Your task to perform on an android device: Add macbook pro to the cart on bestbuy.com Image 0: 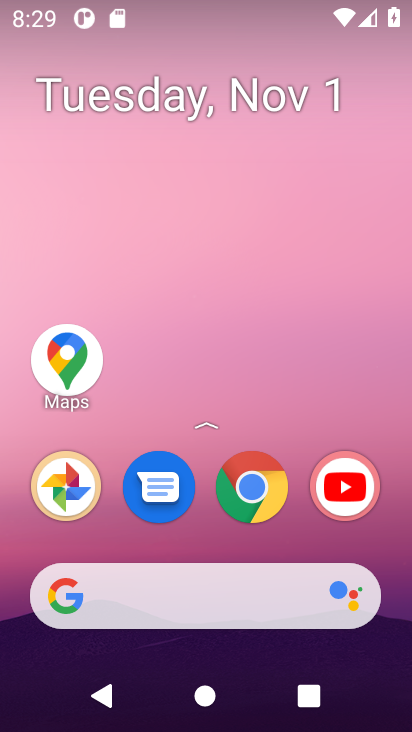
Step 0: press home button
Your task to perform on an android device: Add macbook pro to the cart on bestbuy.com Image 1: 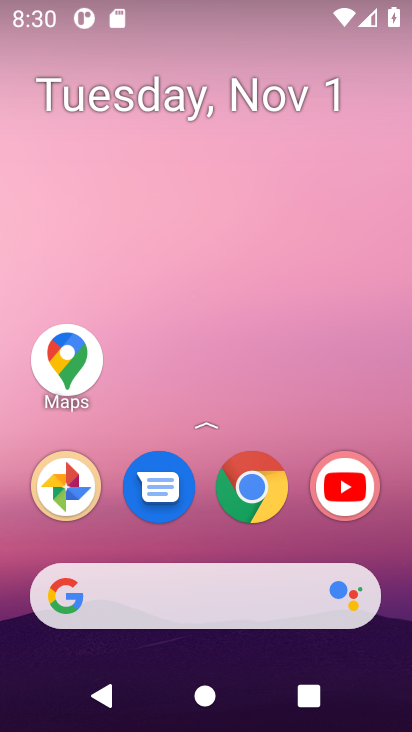
Step 1: drag from (202, 440) to (254, 0)
Your task to perform on an android device: Add macbook pro to the cart on bestbuy.com Image 2: 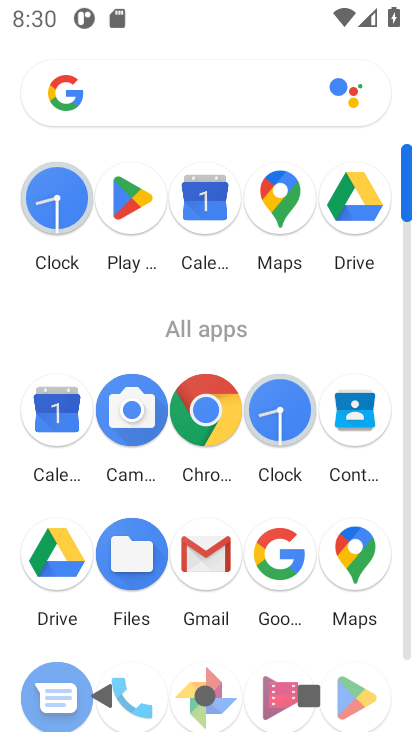
Step 2: click (201, 410)
Your task to perform on an android device: Add macbook pro to the cart on bestbuy.com Image 3: 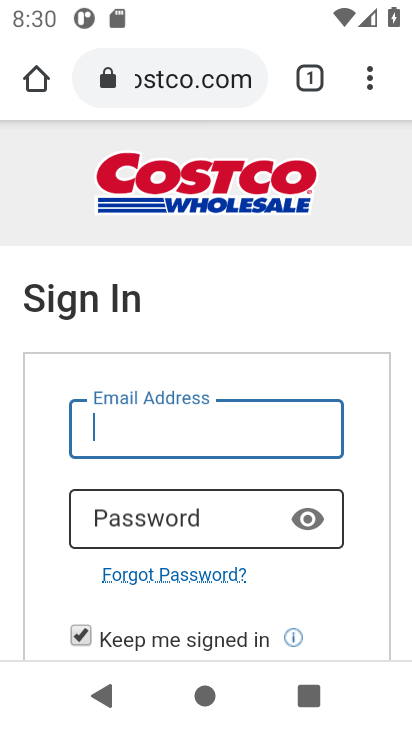
Step 3: click (161, 76)
Your task to perform on an android device: Add macbook pro to the cart on bestbuy.com Image 4: 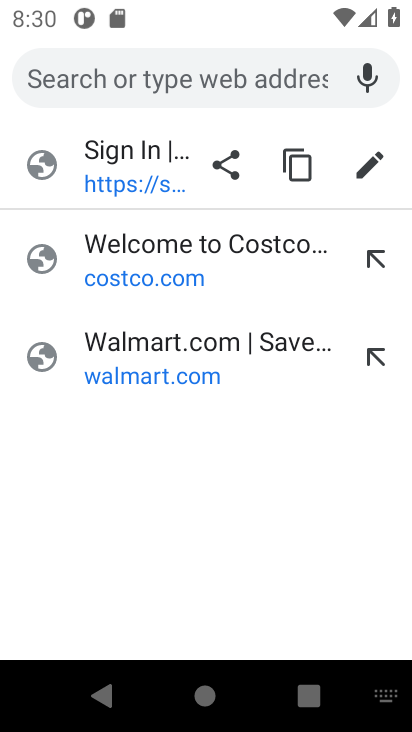
Step 4: type "bestbuy"
Your task to perform on an android device: Add macbook pro to the cart on bestbuy.com Image 5: 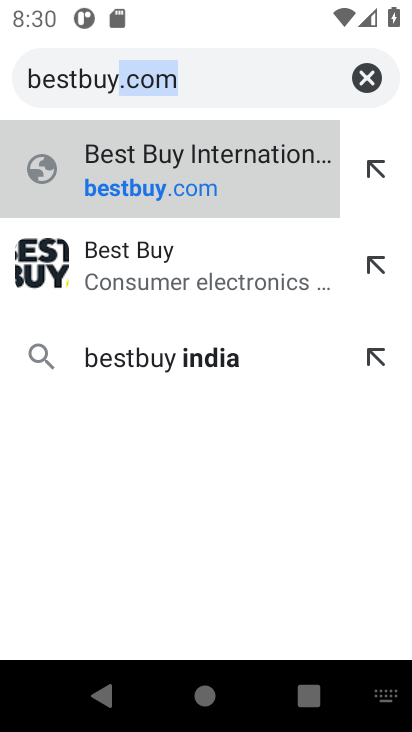
Step 5: click (168, 182)
Your task to perform on an android device: Add macbook pro to the cart on bestbuy.com Image 6: 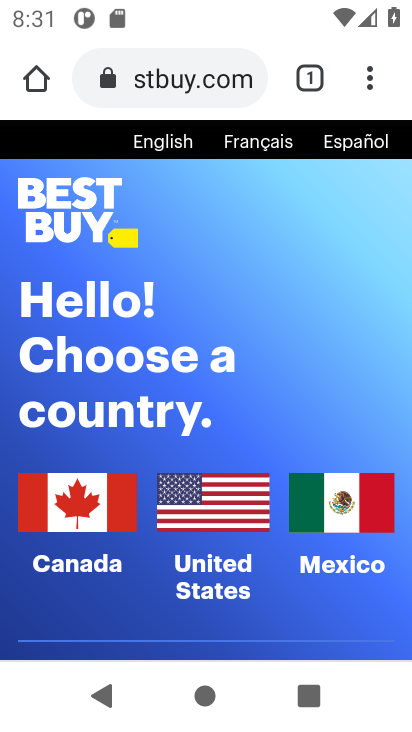
Step 6: click (205, 513)
Your task to perform on an android device: Add macbook pro to the cart on bestbuy.com Image 7: 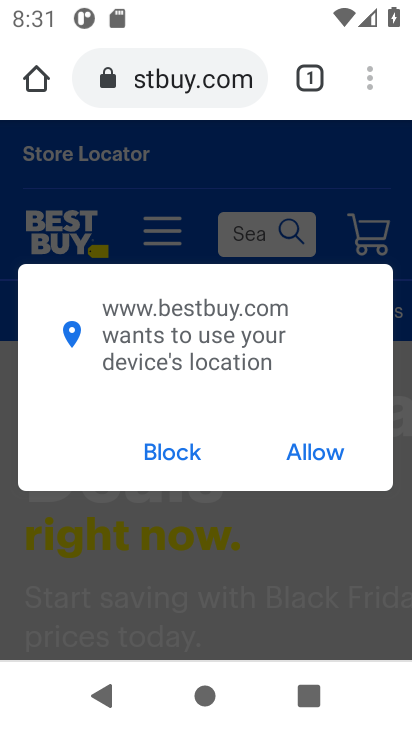
Step 7: click (315, 458)
Your task to perform on an android device: Add macbook pro to the cart on bestbuy.com Image 8: 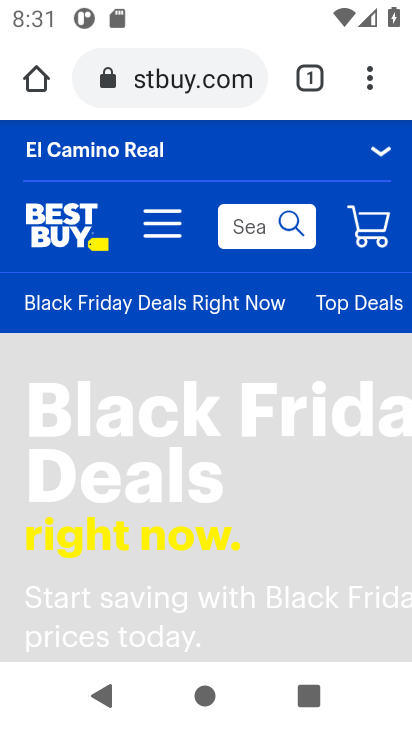
Step 8: click (231, 223)
Your task to perform on an android device: Add macbook pro to the cart on bestbuy.com Image 9: 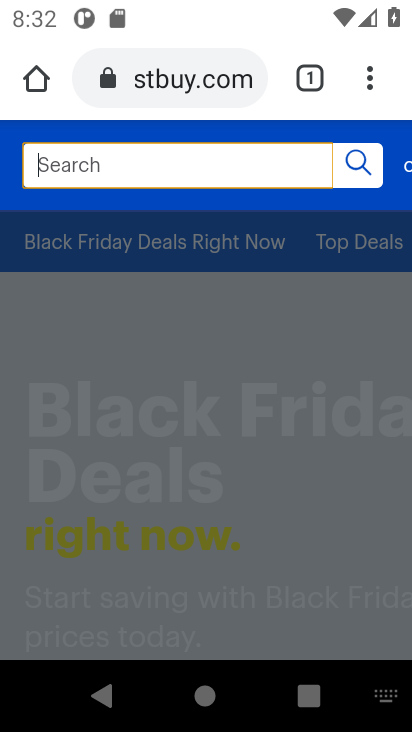
Step 9: type "macbook pro"
Your task to perform on an android device: Add macbook pro to the cart on bestbuy.com Image 10: 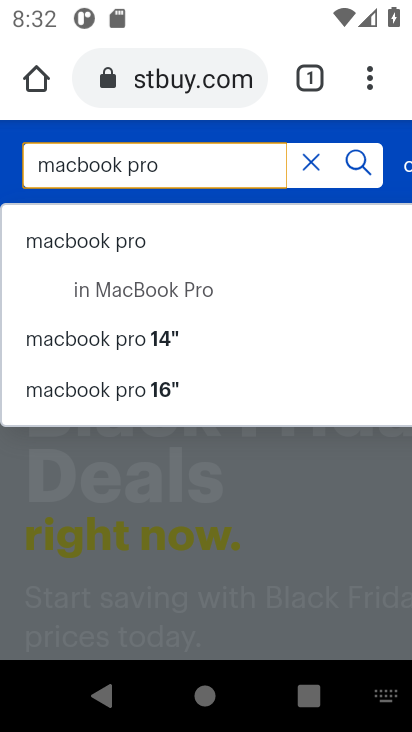
Step 10: click (71, 260)
Your task to perform on an android device: Add macbook pro to the cart on bestbuy.com Image 11: 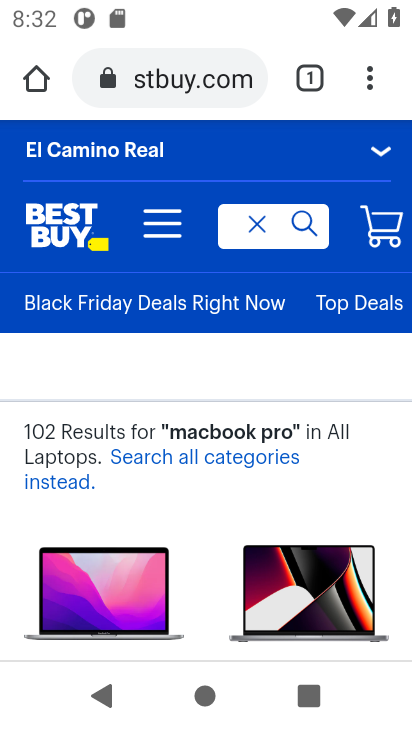
Step 11: drag from (189, 576) to (200, 239)
Your task to perform on an android device: Add macbook pro to the cart on bestbuy.com Image 12: 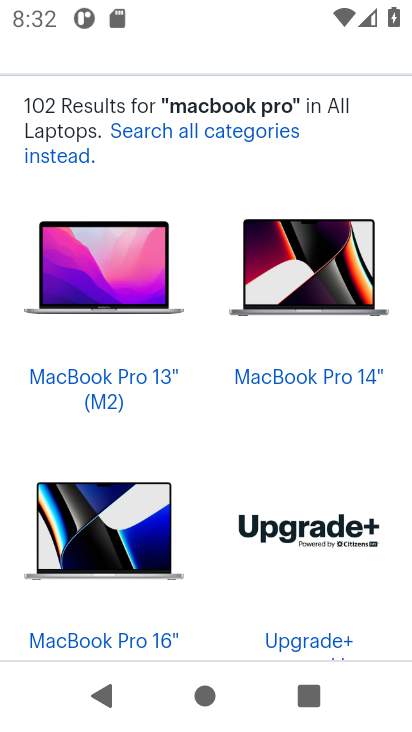
Step 12: click (98, 291)
Your task to perform on an android device: Add macbook pro to the cart on bestbuy.com Image 13: 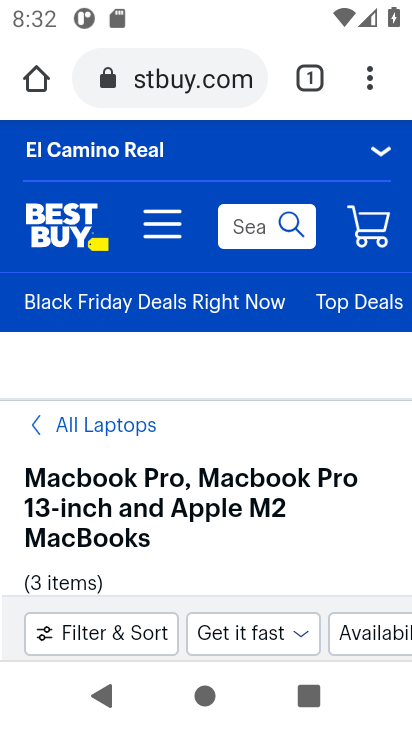
Step 13: drag from (199, 553) to (207, 283)
Your task to perform on an android device: Add macbook pro to the cart on bestbuy.com Image 14: 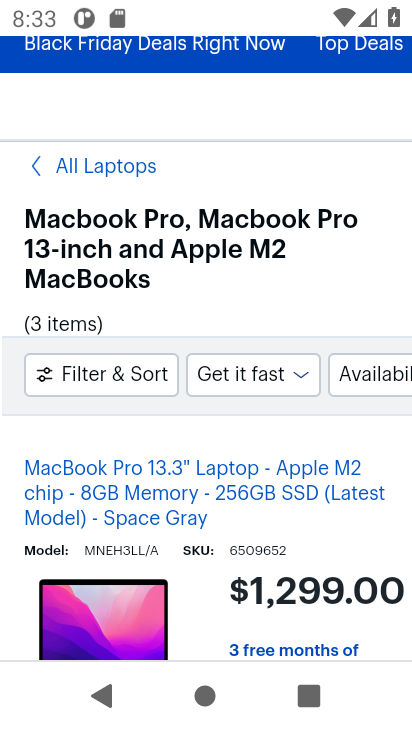
Step 14: click (164, 492)
Your task to perform on an android device: Add macbook pro to the cart on bestbuy.com Image 15: 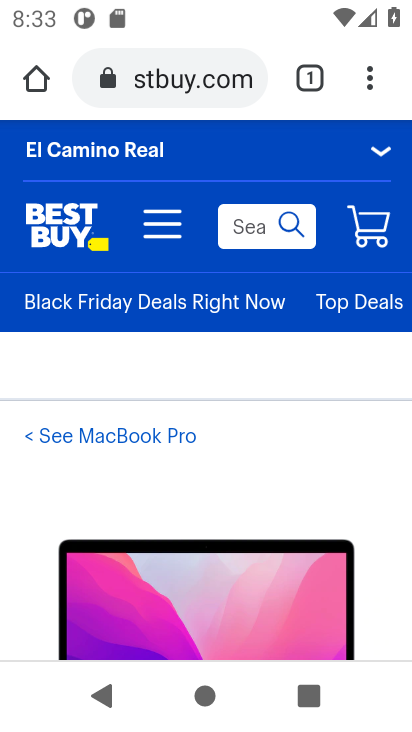
Step 15: drag from (375, 605) to (352, 198)
Your task to perform on an android device: Add macbook pro to the cart on bestbuy.com Image 16: 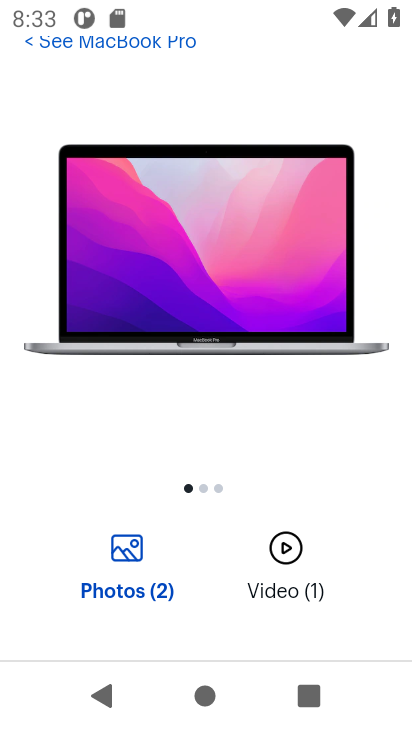
Step 16: drag from (210, 628) to (266, 108)
Your task to perform on an android device: Add macbook pro to the cart on bestbuy.com Image 17: 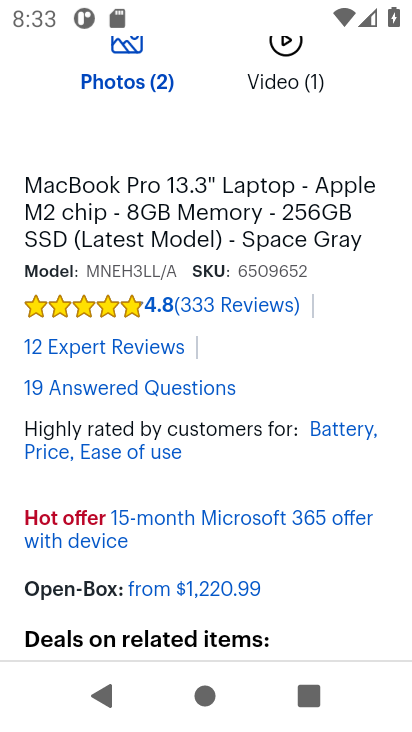
Step 17: drag from (292, 623) to (309, 177)
Your task to perform on an android device: Add macbook pro to the cart on bestbuy.com Image 18: 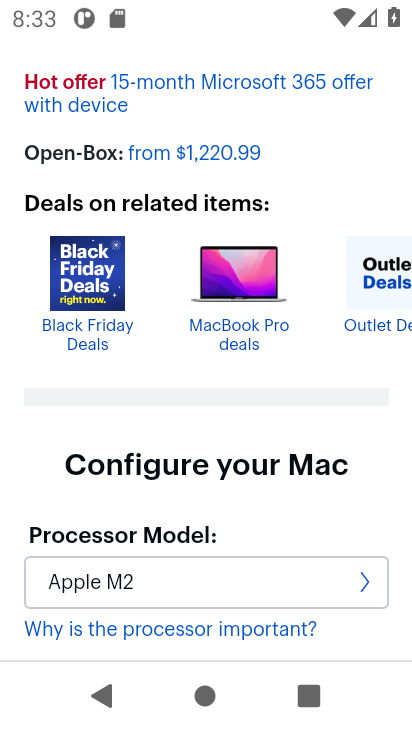
Step 18: drag from (244, 516) to (267, 365)
Your task to perform on an android device: Add macbook pro to the cart on bestbuy.com Image 19: 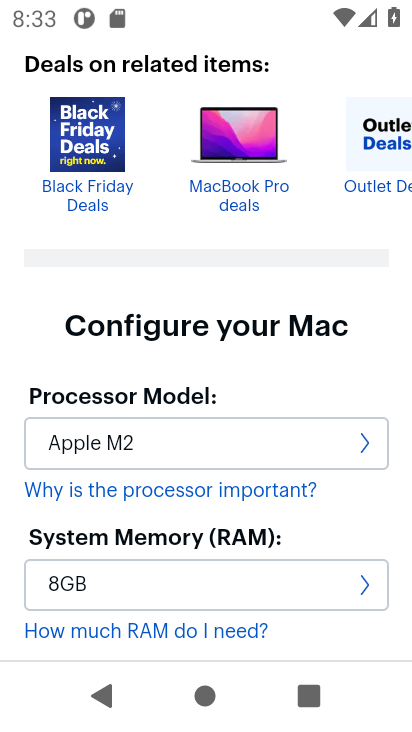
Step 19: drag from (296, 626) to (290, 182)
Your task to perform on an android device: Add macbook pro to the cart on bestbuy.com Image 20: 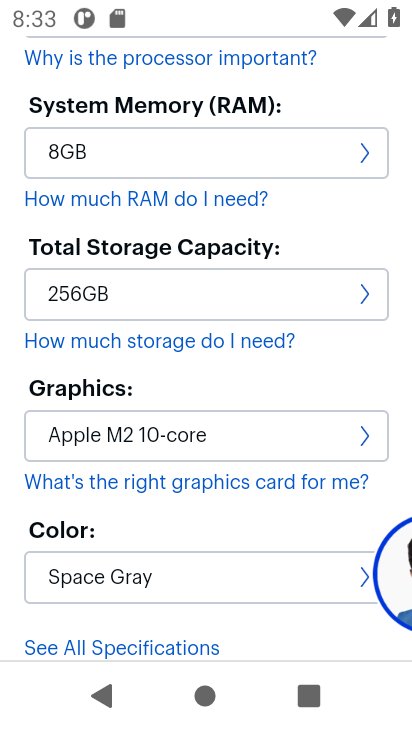
Step 20: drag from (229, 628) to (242, 167)
Your task to perform on an android device: Add macbook pro to the cart on bestbuy.com Image 21: 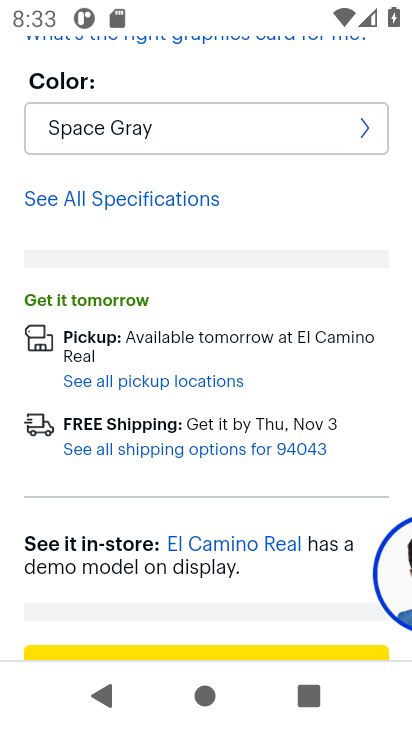
Step 21: drag from (218, 596) to (244, 265)
Your task to perform on an android device: Add macbook pro to the cart on bestbuy.com Image 22: 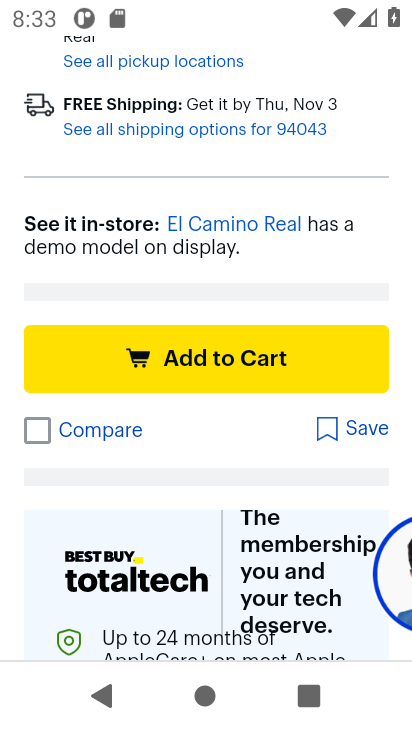
Step 22: click (200, 354)
Your task to perform on an android device: Add macbook pro to the cart on bestbuy.com Image 23: 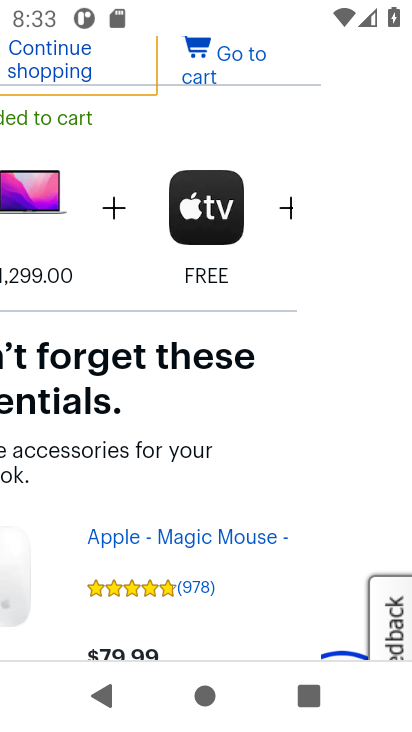
Step 23: click (206, 68)
Your task to perform on an android device: Add macbook pro to the cart on bestbuy.com Image 24: 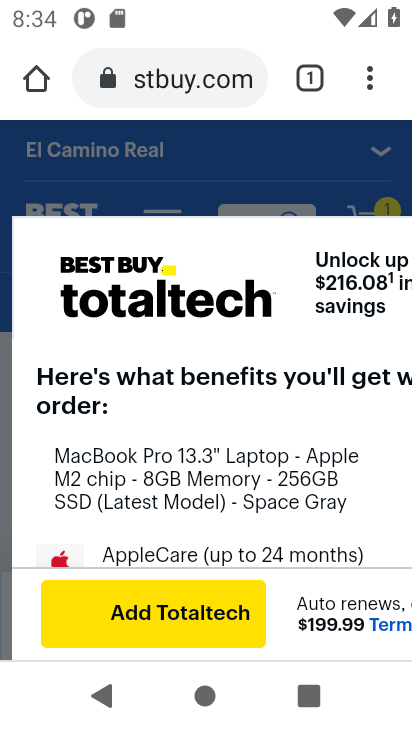
Step 24: click (373, 222)
Your task to perform on an android device: Add macbook pro to the cart on bestbuy.com Image 25: 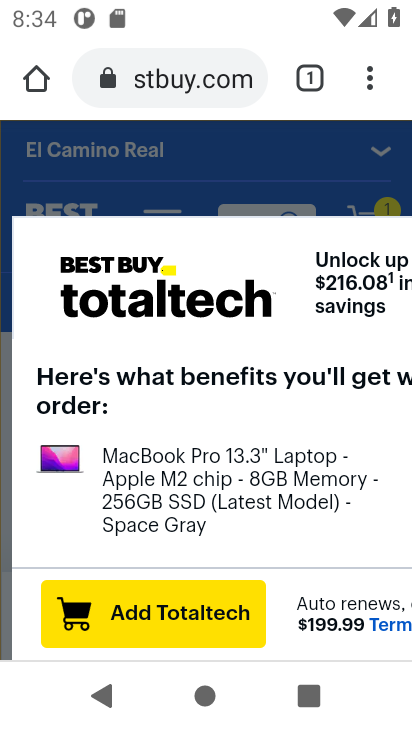
Step 25: click (149, 625)
Your task to perform on an android device: Add macbook pro to the cart on bestbuy.com Image 26: 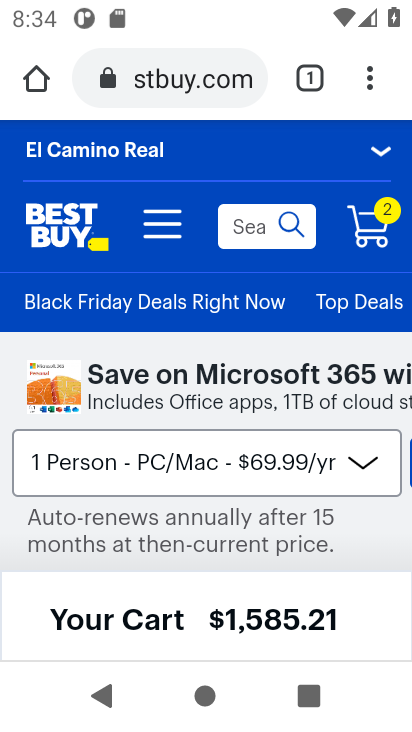
Step 26: click (369, 225)
Your task to perform on an android device: Add macbook pro to the cart on bestbuy.com Image 27: 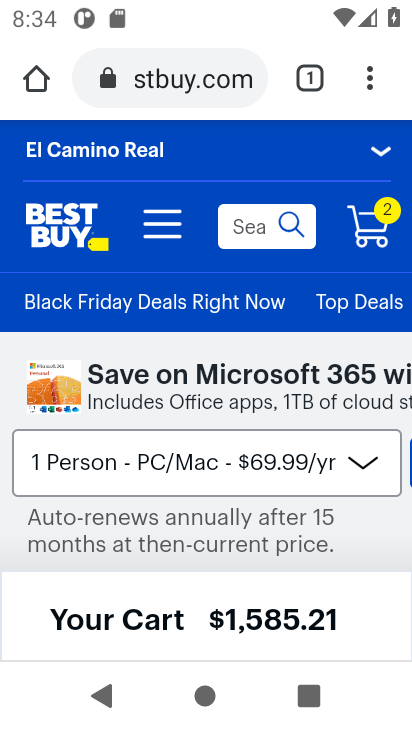
Step 27: drag from (215, 515) to (204, 144)
Your task to perform on an android device: Add macbook pro to the cart on bestbuy.com Image 28: 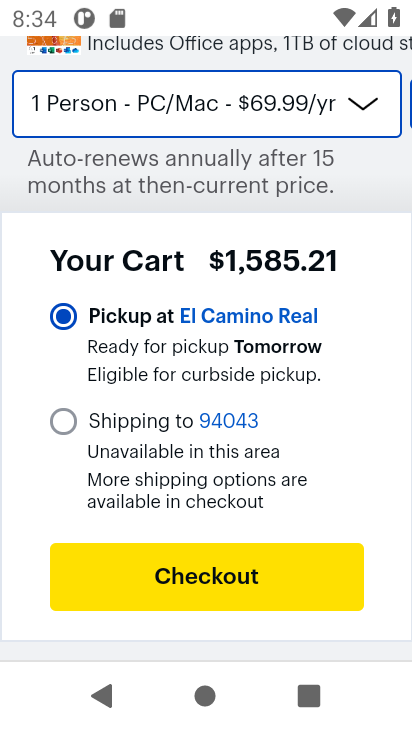
Step 28: click (198, 575)
Your task to perform on an android device: Add macbook pro to the cart on bestbuy.com Image 29: 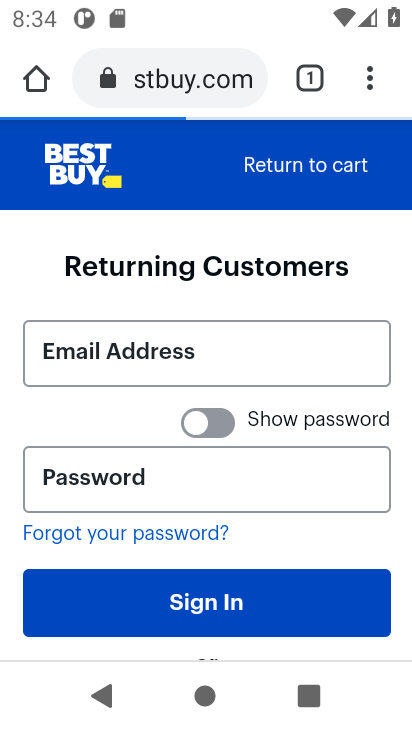
Step 29: task complete